Your task to perform on an android device: delete browsing data in the chrome app Image 0: 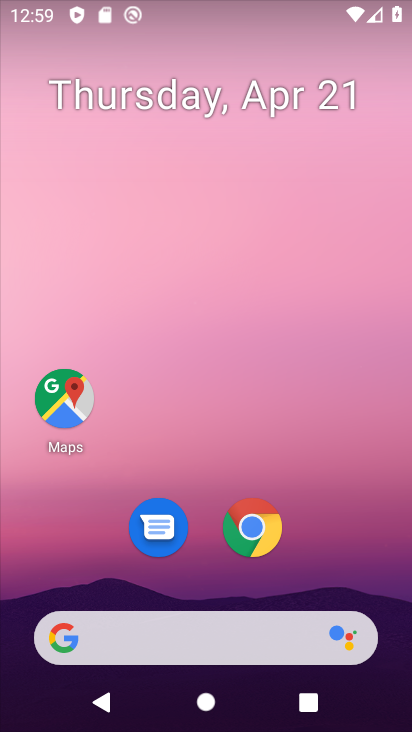
Step 0: drag from (335, 560) to (318, 106)
Your task to perform on an android device: delete browsing data in the chrome app Image 1: 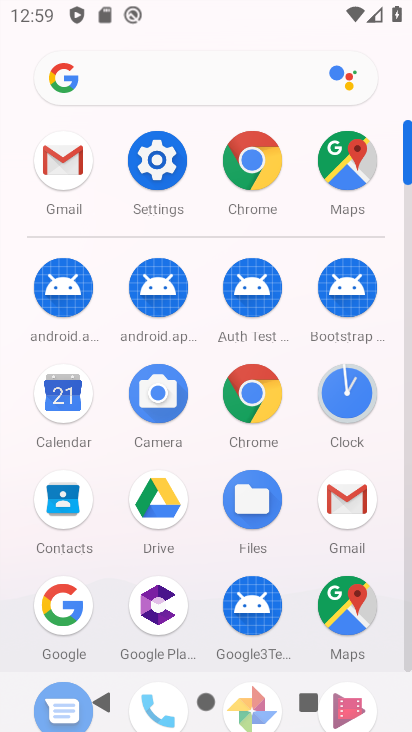
Step 1: click (248, 408)
Your task to perform on an android device: delete browsing data in the chrome app Image 2: 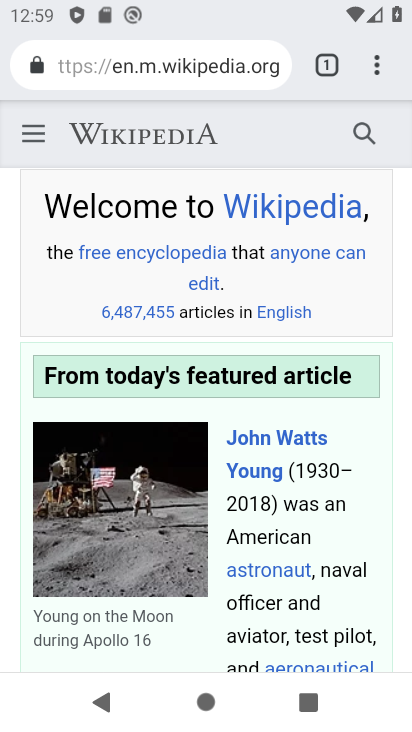
Step 2: click (379, 66)
Your task to perform on an android device: delete browsing data in the chrome app Image 3: 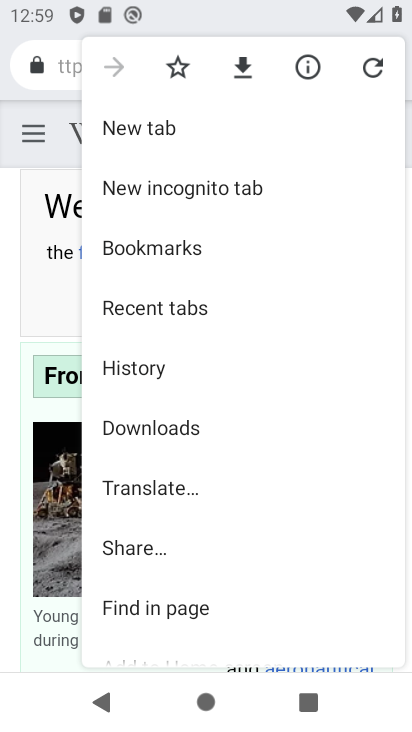
Step 3: drag from (323, 484) to (314, 355)
Your task to perform on an android device: delete browsing data in the chrome app Image 4: 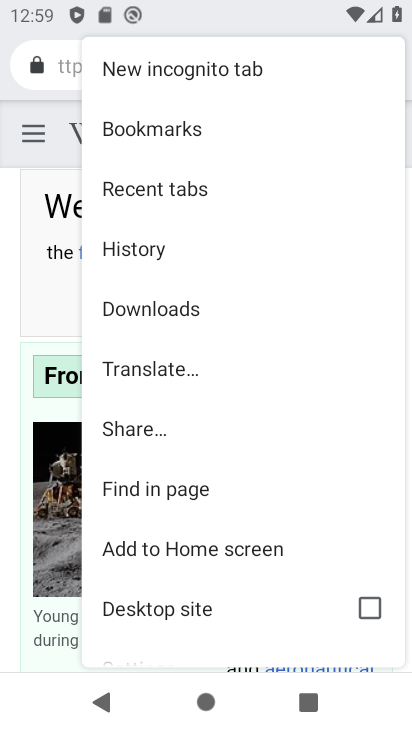
Step 4: drag from (318, 516) to (318, 337)
Your task to perform on an android device: delete browsing data in the chrome app Image 5: 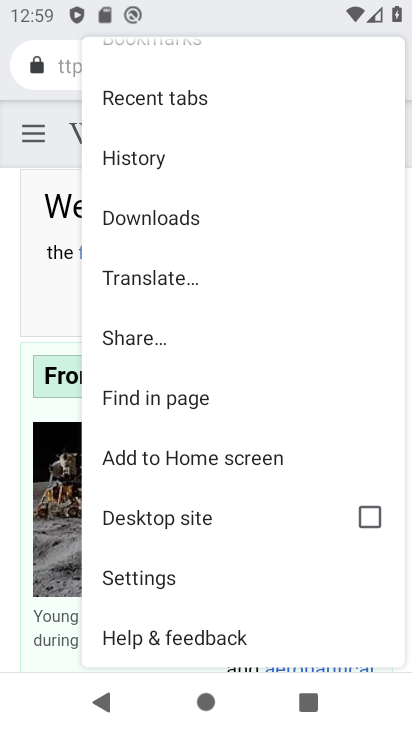
Step 5: click (164, 577)
Your task to perform on an android device: delete browsing data in the chrome app Image 6: 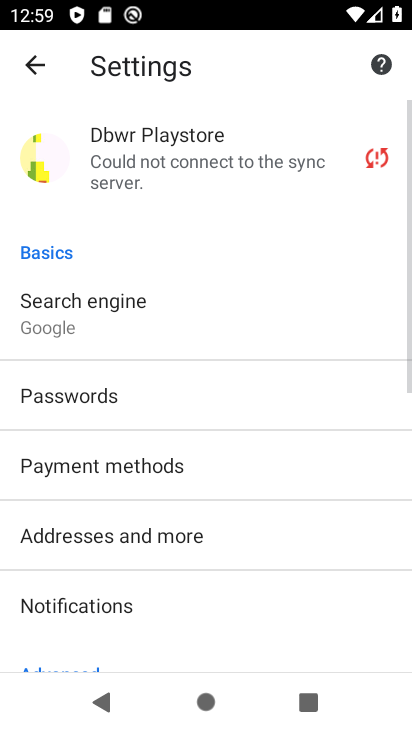
Step 6: drag from (280, 580) to (282, 427)
Your task to perform on an android device: delete browsing data in the chrome app Image 7: 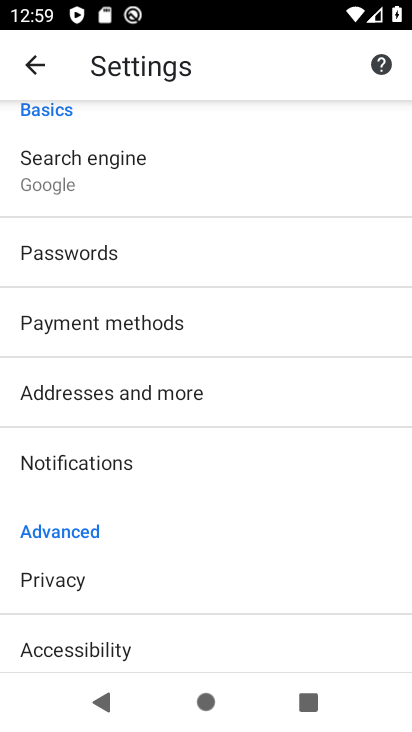
Step 7: drag from (260, 556) to (271, 401)
Your task to perform on an android device: delete browsing data in the chrome app Image 8: 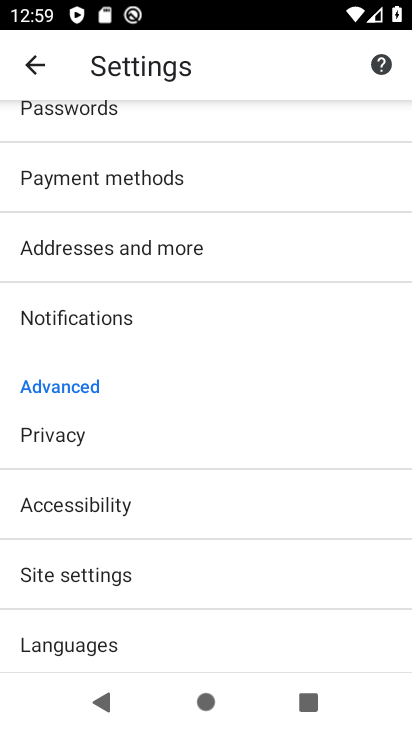
Step 8: drag from (280, 621) to (296, 476)
Your task to perform on an android device: delete browsing data in the chrome app Image 9: 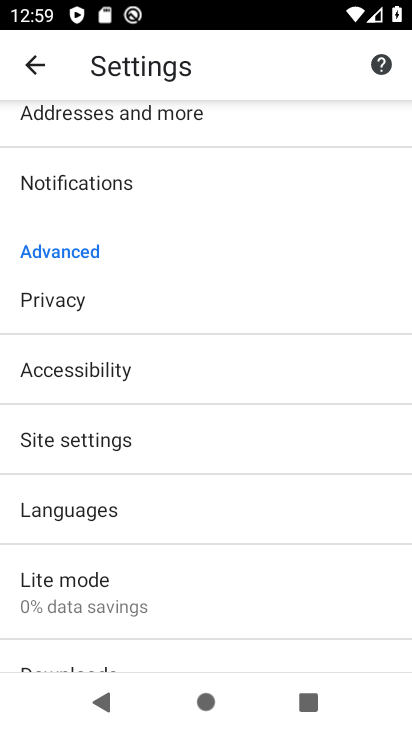
Step 9: drag from (282, 599) to (282, 454)
Your task to perform on an android device: delete browsing data in the chrome app Image 10: 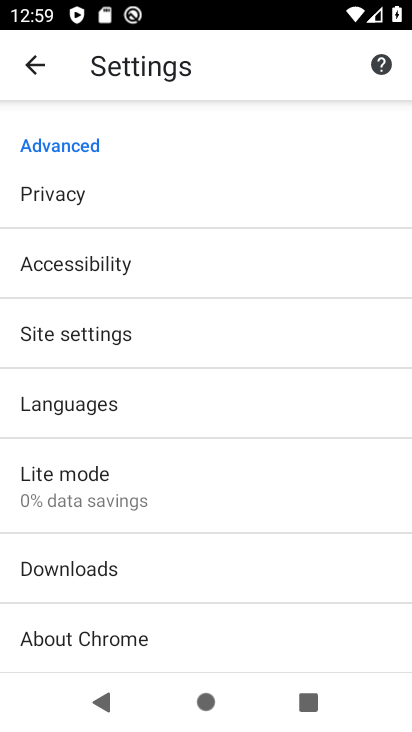
Step 10: drag from (266, 572) to (265, 392)
Your task to perform on an android device: delete browsing data in the chrome app Image 11: 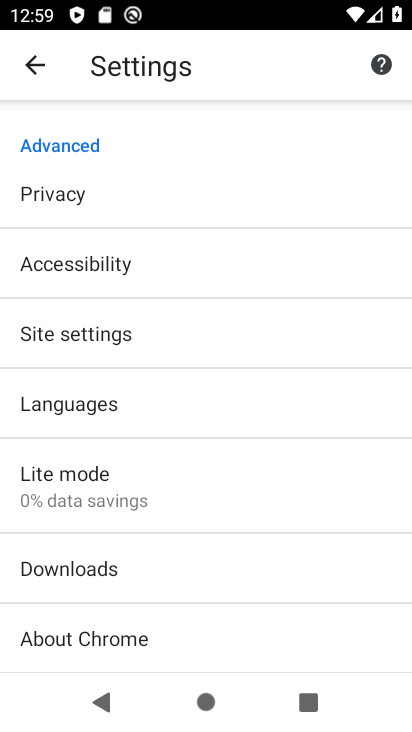
Step 11: click (117, 198)
Your task to perform on an android device: delete browsing data in the chrome app Image 12: 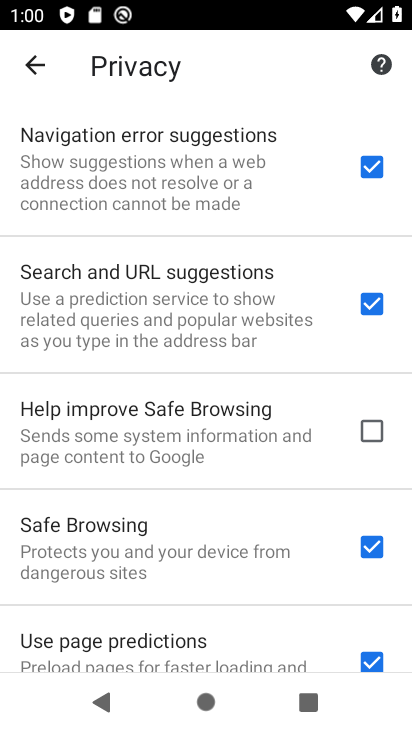
Step 12: drag from (256, 591) to (272, 414)
Your task to perform on an android device: delete browsing data in the chrome app Image 13: 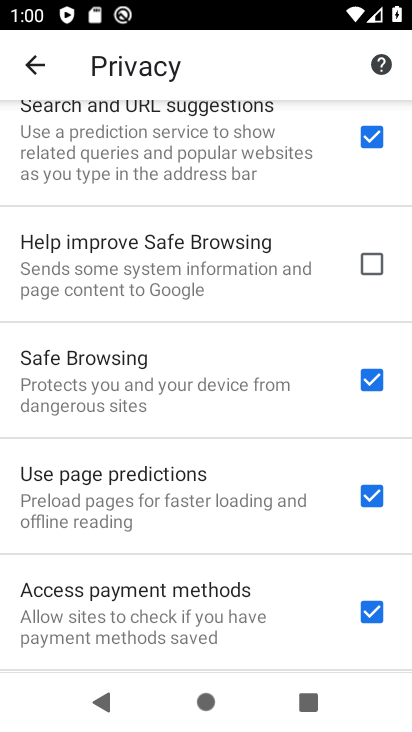
Step 13: drag from (285, 607) to (286, 462)
Your task to perform on an android device: delete browsing data in the chrome app Image 14: 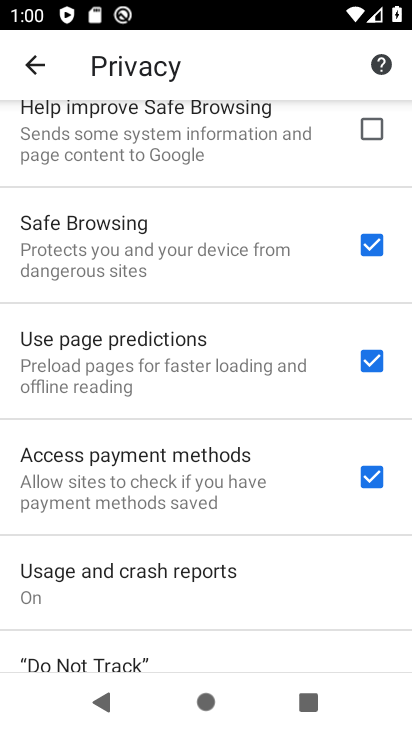
Step 14: drag from (277, 615) to (291, 505)
Your task to perform on an android device: delete browsing data in the chrome app Image 15: 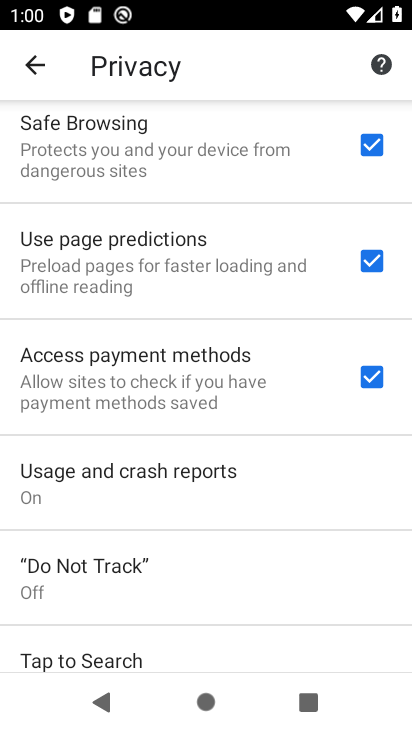
Step 15: drag from (273, 624) to (273, 458)
Your task to perform on an android device: delete browsing data in the chrome app Image 16: 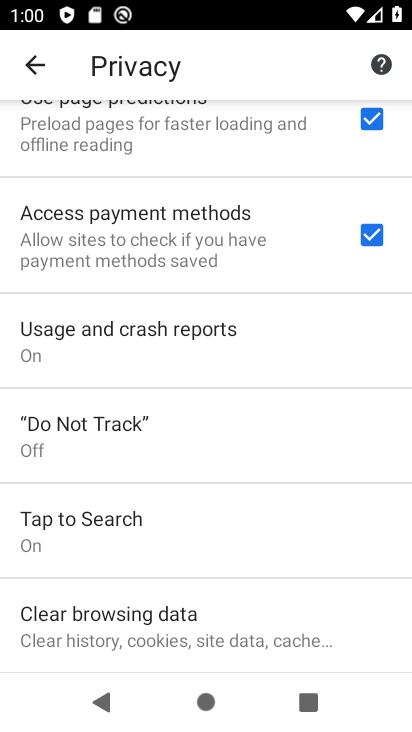
Step 16: drag from (274, 600) to (281, 454)
Your task to perform on an android device: delete browsing data in the chrome app Image 17: 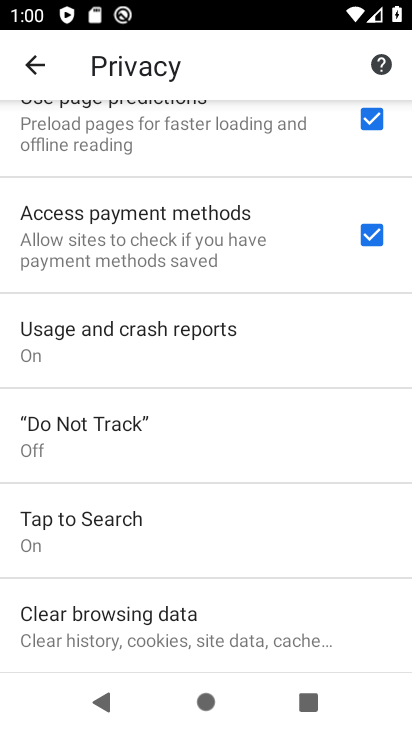
Step 17: click (184, 632)
Your task to perform on an android device: delete browsing data in the chrome app Image 18: 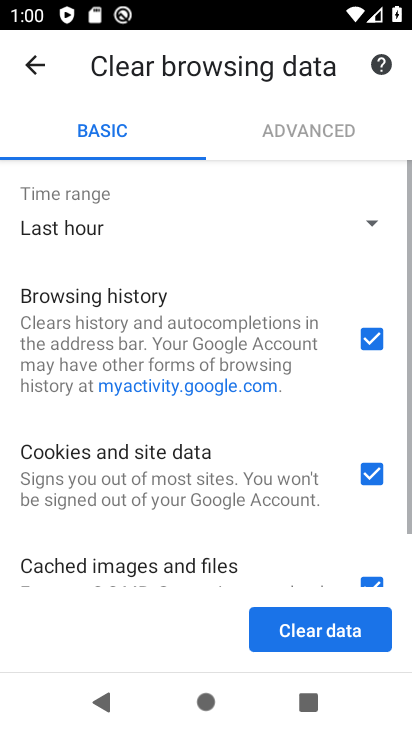
Step 18: click (290, 616)
Your task to perform on an android device: delete browsing data in the chrome app Image 19: 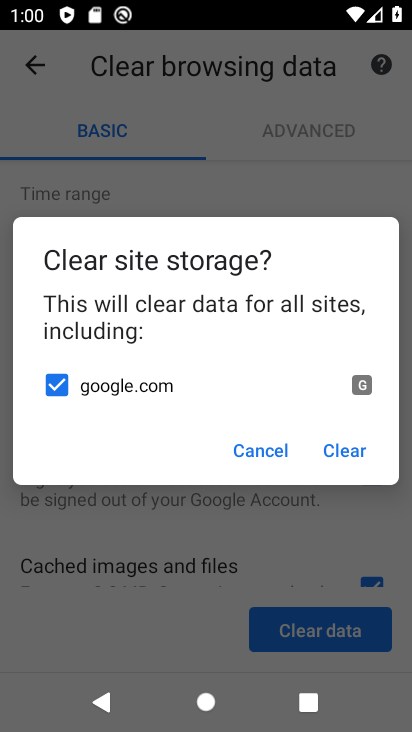
Step 19: click (336, 448)
Your task to perform on an android device: delete browsing data in the chrome app Image 20: 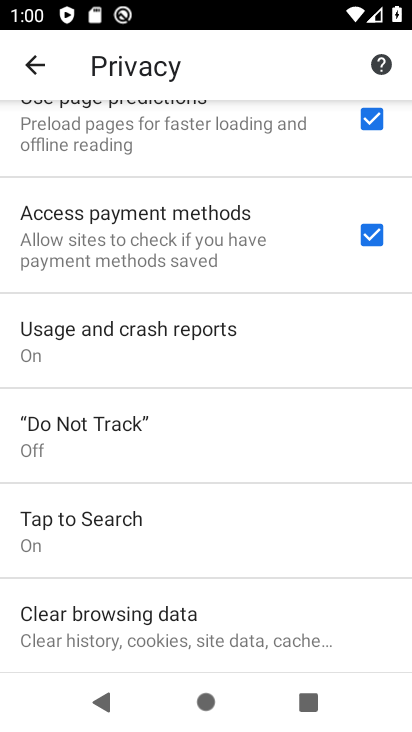
Step 20: task complete